Your task to perform on an android device: Go to CNN.com Image 0: 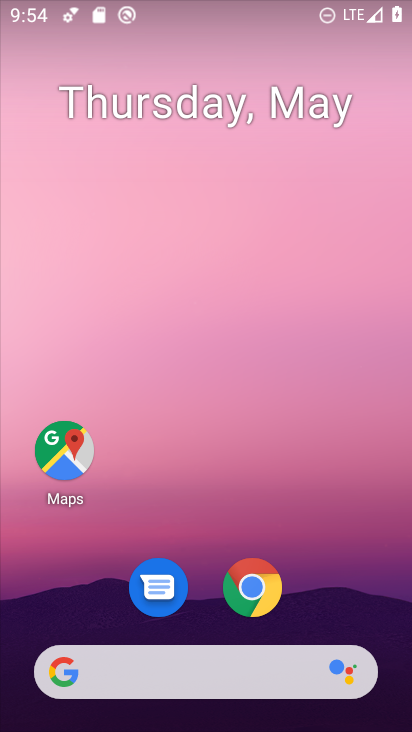
Step 0: click (270, 593)
Your task to perform on an android device: Go to CNN.com Image 1: 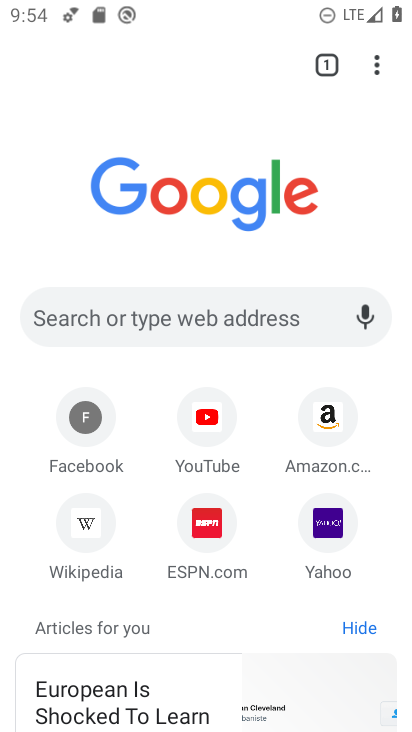
Step 1: click (168, 323)
Your task to perform on an android device: Go to CNN.com Image 2: 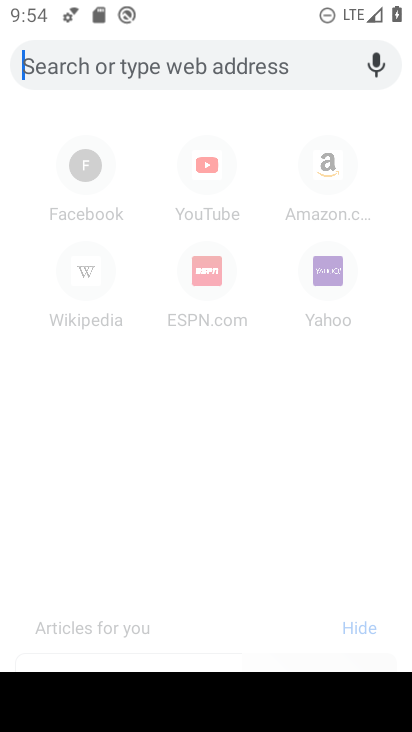
Step 2: type "cnn.com"
Your task to perform on an android device: Go to CNN.com Image 3: 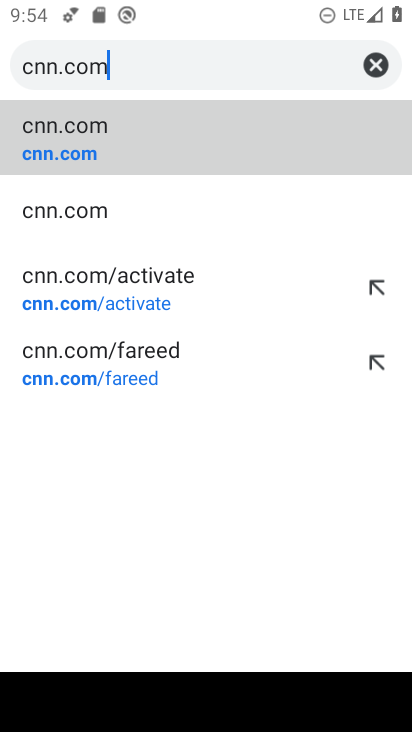
Step 3: click (67, 151)
Your task to perform on an android device: Go to CNN.com Image 4: 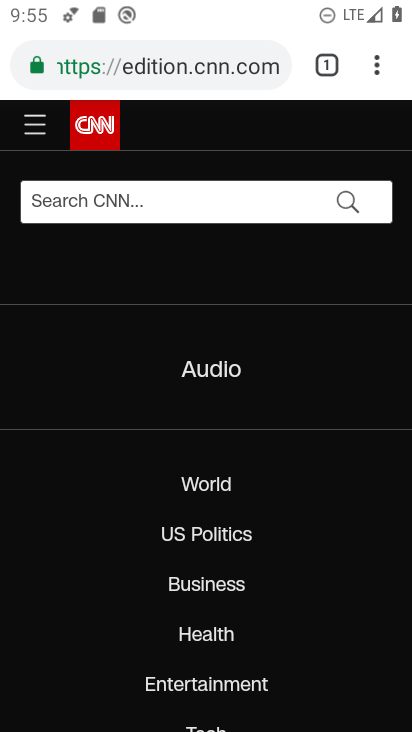
Step 4: task complete